Your task to perform on an android device: turn on javascript in the chrome app Image 0: 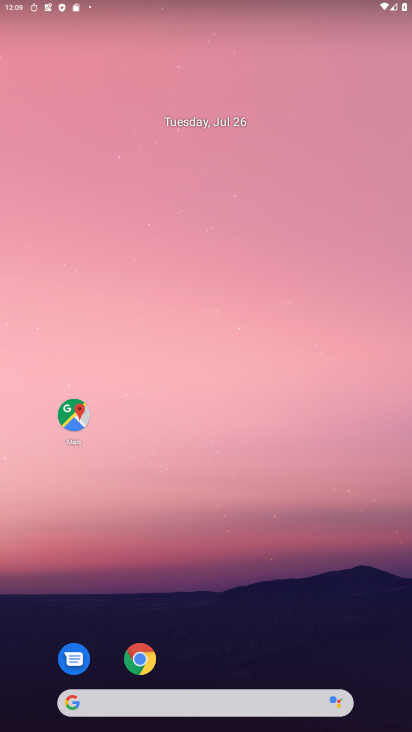
Step 0: click (135, 662)
Your task to perform on an android device: turn on javascript in the chrome app Image 1: 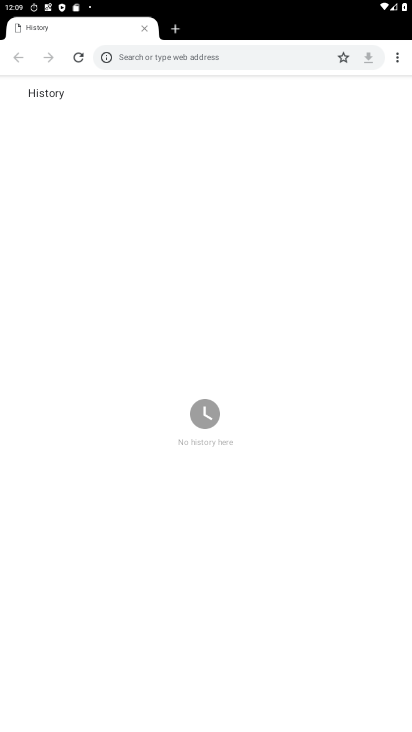
Step 1: click (398, 53)
Your task to perform on an android device: turn on javascript in the chrome app Image 2: 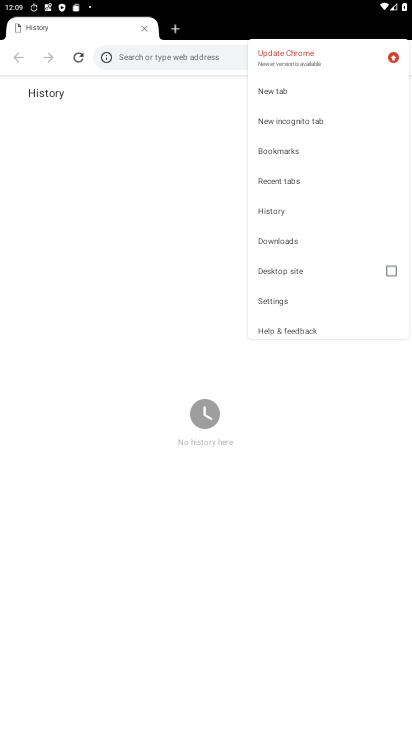
Step 2: click (266, 301)
Your task to perform on an android device: turn on javascript in the chrome app Image 3: 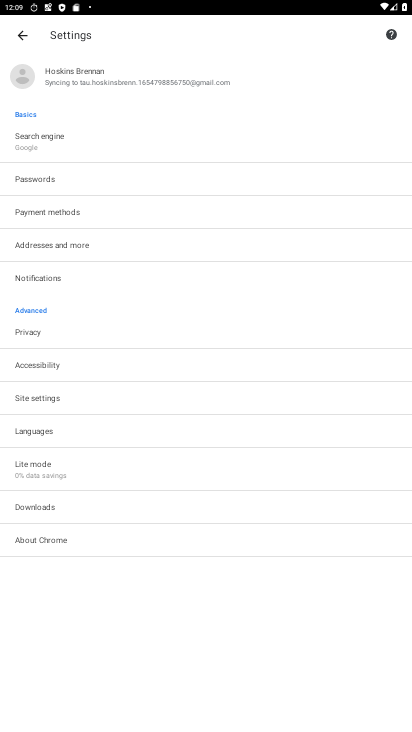
Step 3: click (46, 404)
Your task to perform on an android device: turn on javascript in the chrome app Image 4: 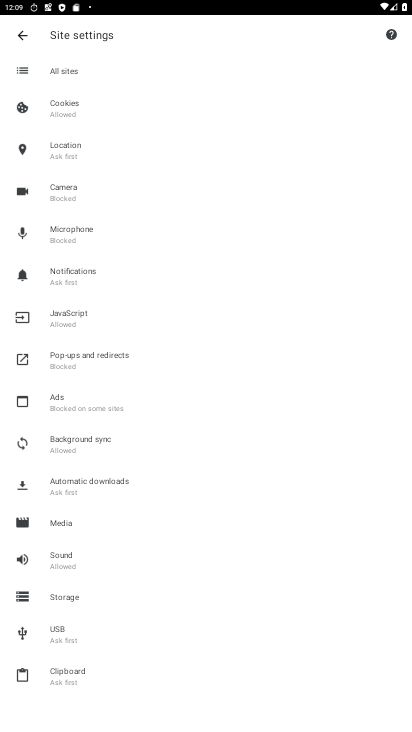
Step 4: click (58, 328)
Your task to perform on an android device: turn on javascript in the chrome app Image 5: 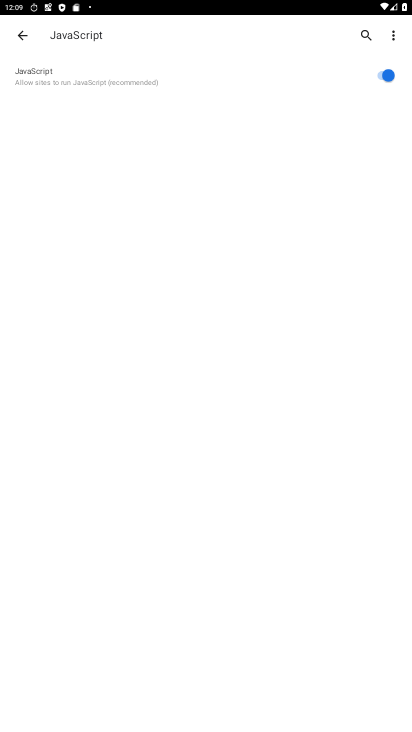
Step 5: task complete